Your task to perform on an android device: find which apps use the phone's location Image 0: 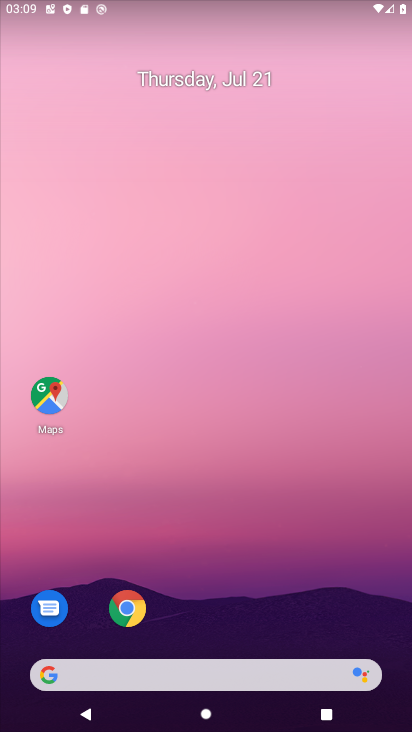
Step 0: drag from (257, 675) to (283, 65)
Your task to perform on an android device: find which apps use the phone's location Image 1: 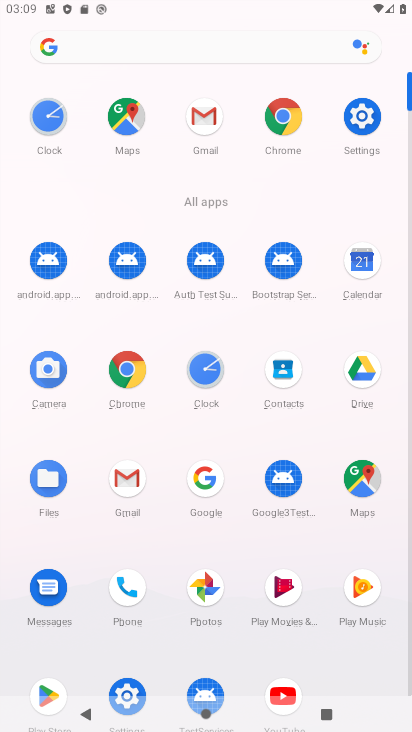
Step 1: click (347, 108)
Your task to perform on an android device: find which apps use the phone's location Image 2: 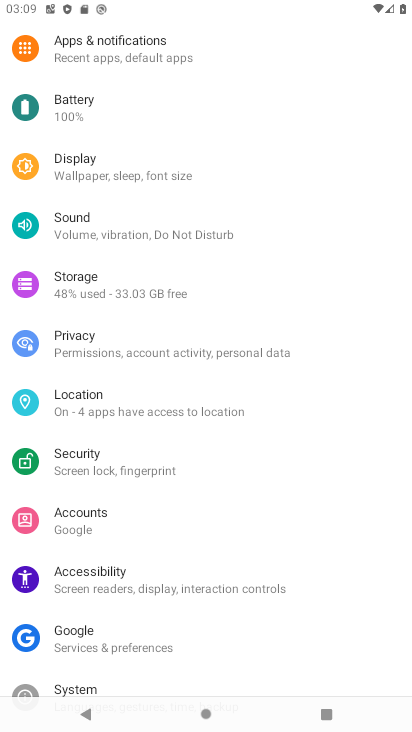
Step 2: click (134, 409)
Your task to perform on an android device: find which apps use the phone's location Image 3: 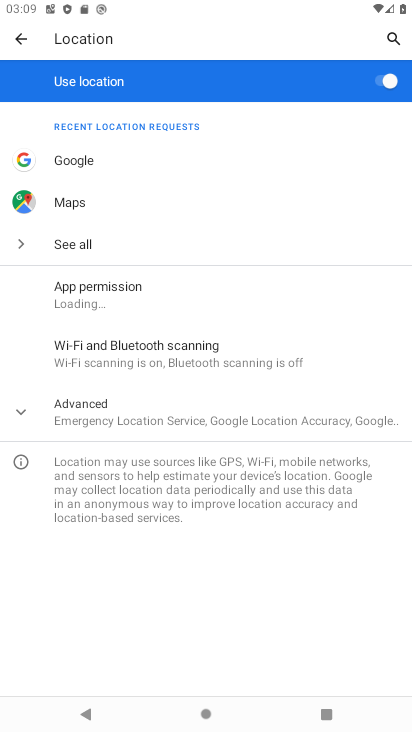
Step 3: click (134, 409)
Your task to perform on an android device: find which apps use the phone's location Image 4: 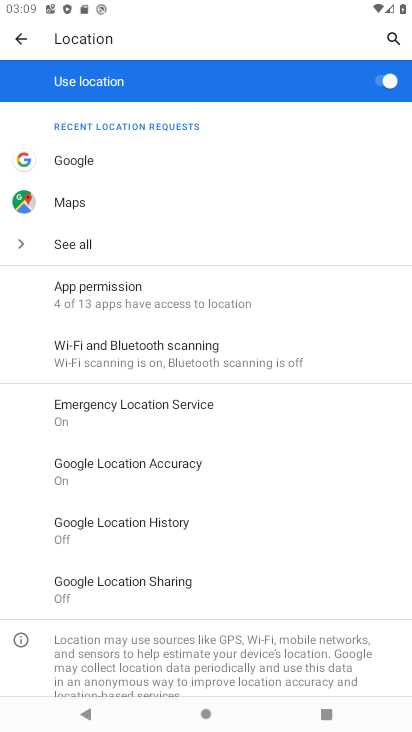
Step 4: click (93, 286)
Your task to perform on an android device: find which apps use the phone's location Image 5: 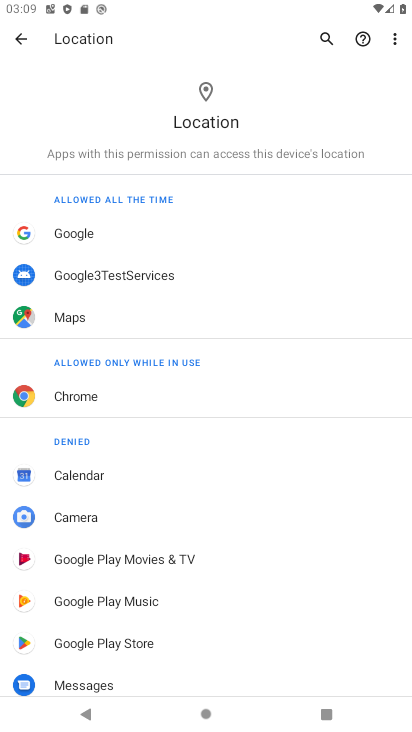
Step 5: task complete